Your task to perform on an android device: change the clock display to show seconds Image 0: 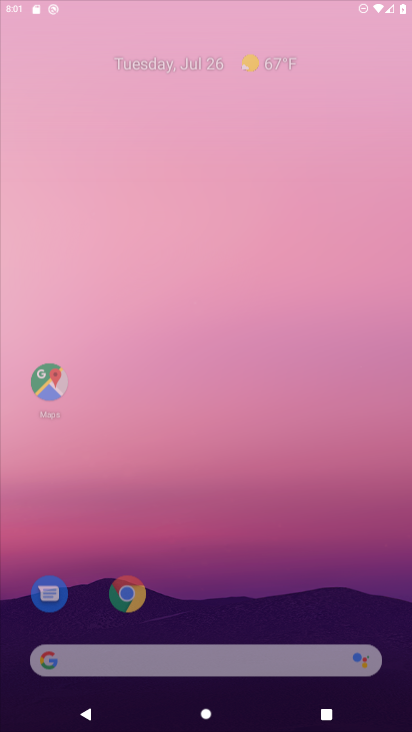
Step 0: click (213, 141)
Your task to perform on an android device: change the clock display to show seconds Image 1: 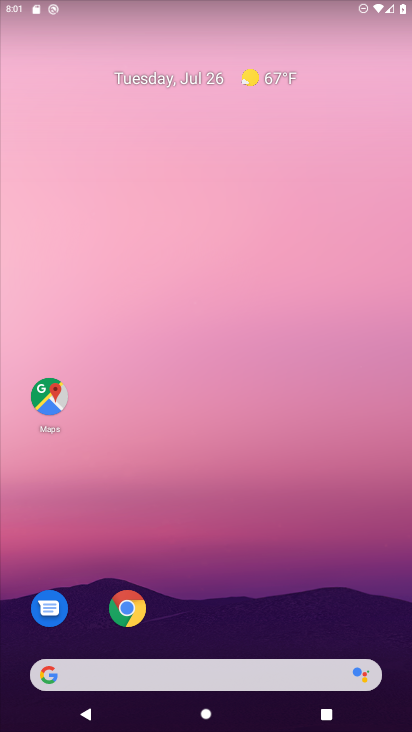
Step 1: drag from (273, 591) to (238, 9)
Your task to perform on an android device: change the clock display to show seconds Image 2: 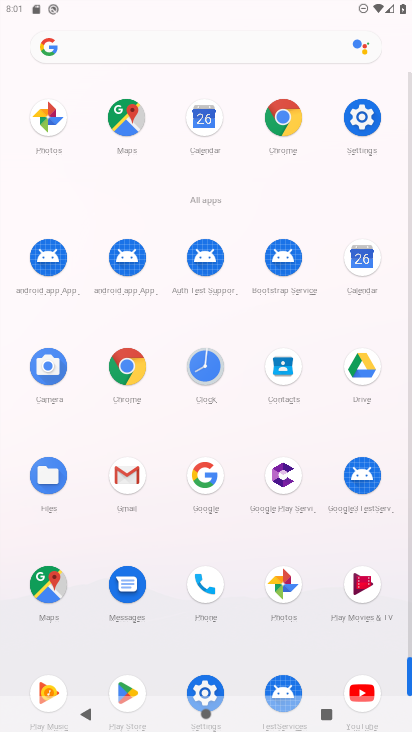
Step 2: click (207, 366)
Your task to perform on an android device: change the clock display to show seconds Image 3: 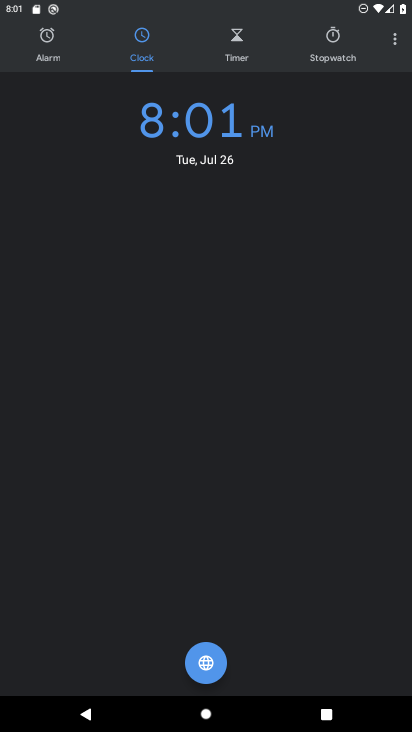
Step 3: click (389, 41)
Your task to perform on an android device: change the clock display to show seconds Image 4: 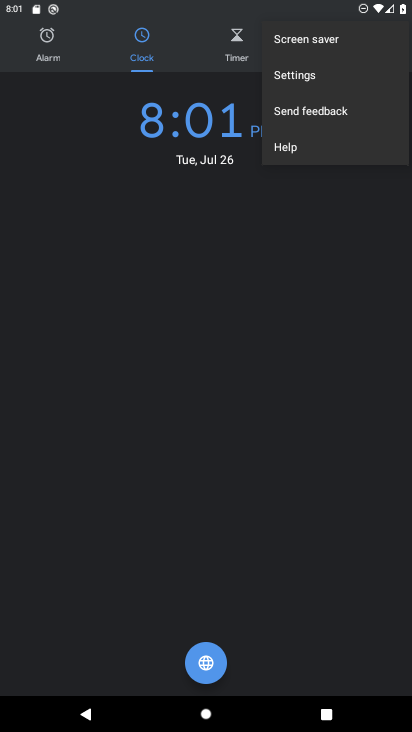
Step 4: click (293, 73)
Your task to perform on an android device: change the clock display to show seconds Image 5: 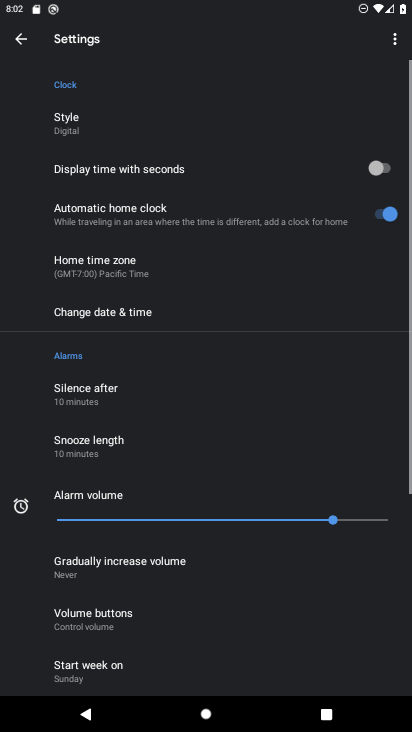
Step 5: click (90, 123)
Your task to perform on an android device: change the clock display to show seconds Image 6: 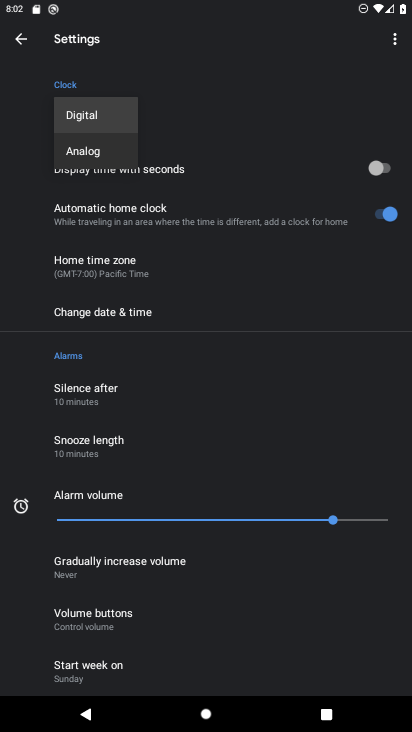
Step 6: click (115, 151)
Your task to perform on an android device: change the clock display to show seconds Image 7: 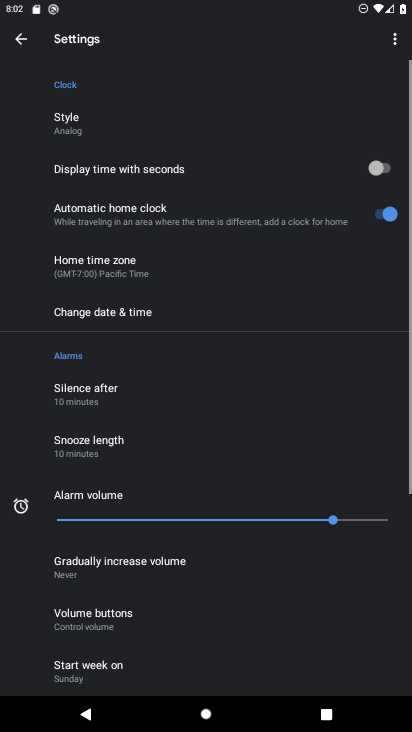
Step 7: click (392, 168)
Your task to perform on an android device: change the clock display to show seconds Image 8: 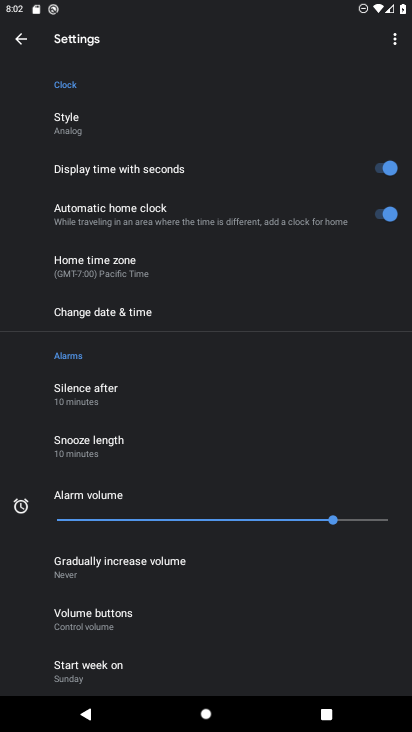
Step 8: task complete